Your task to perform on an android device: Go to location settings Image 0: 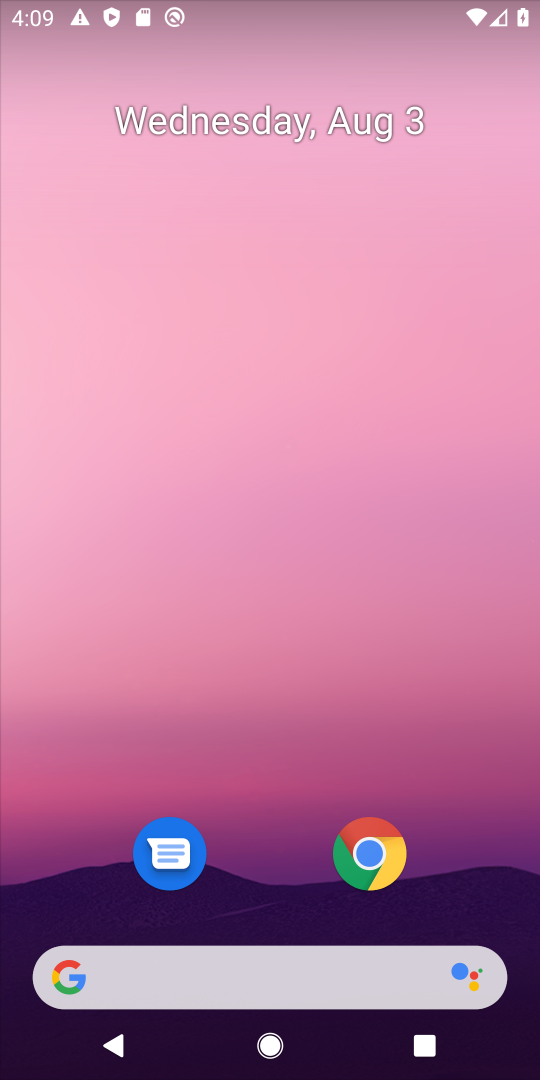
Step 0: drag from (257, 870) to (266, 50)
Your task to perform on an android device: Go to location settings Image 1: 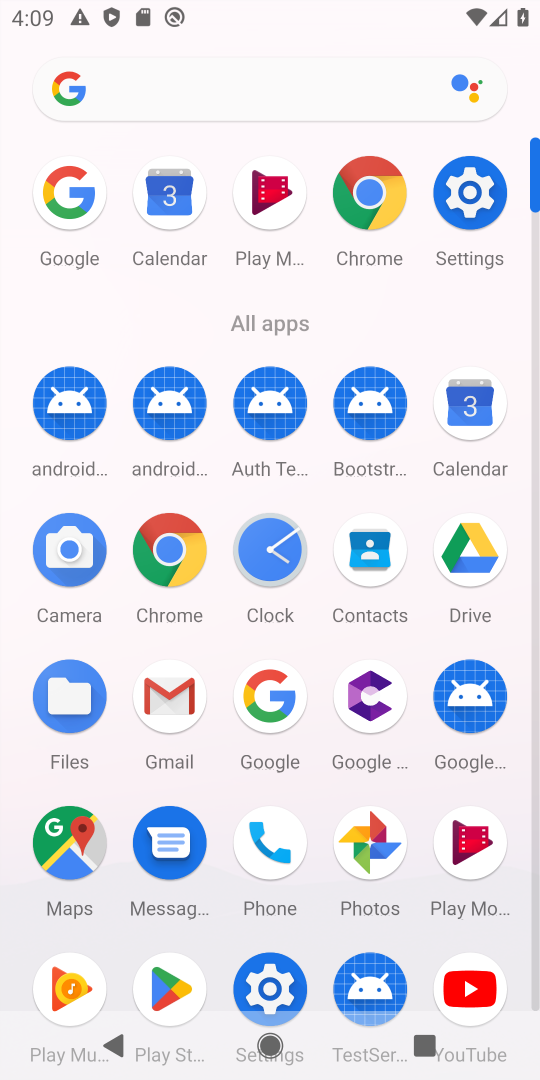
Step 1: click (476, 196)
Your task to perform on an android device: Go to location settings Image 2: 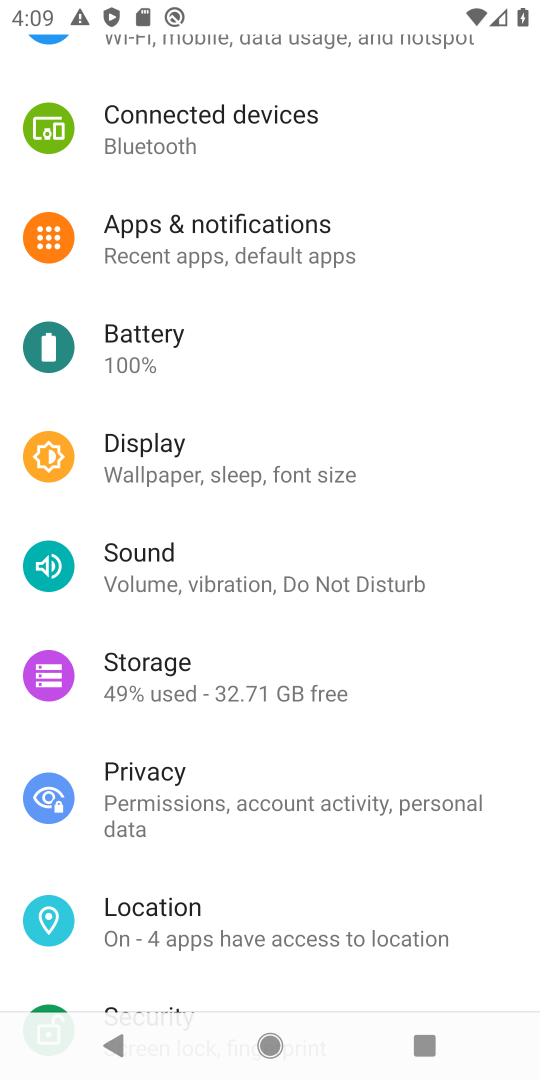
Step 2: click (145, 911)
Your task to perform on an android device: Go to location settings Image 3: 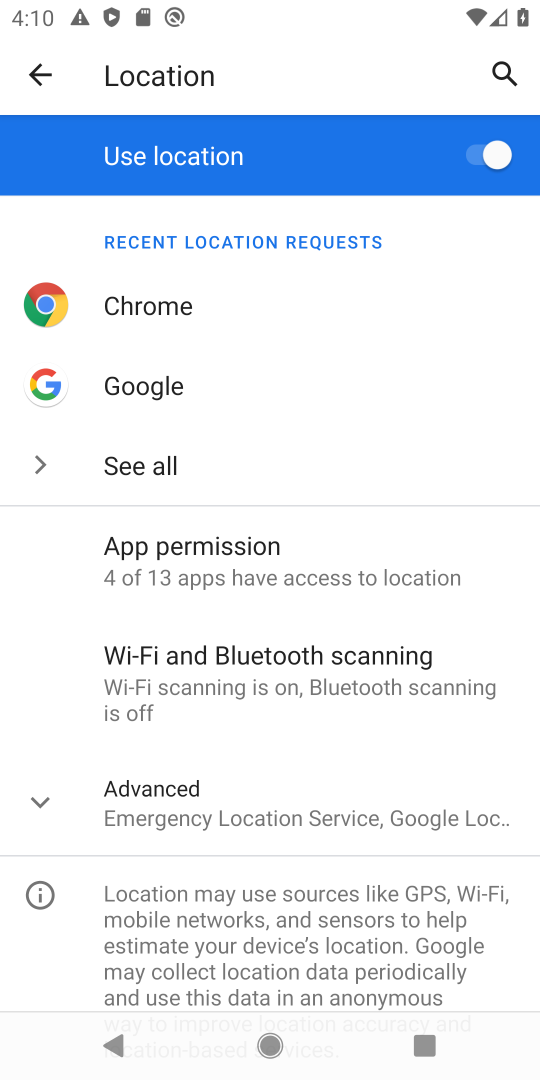
Step 3: task complete